Your task to perform on an android device: Go to privacy settings Image 0: 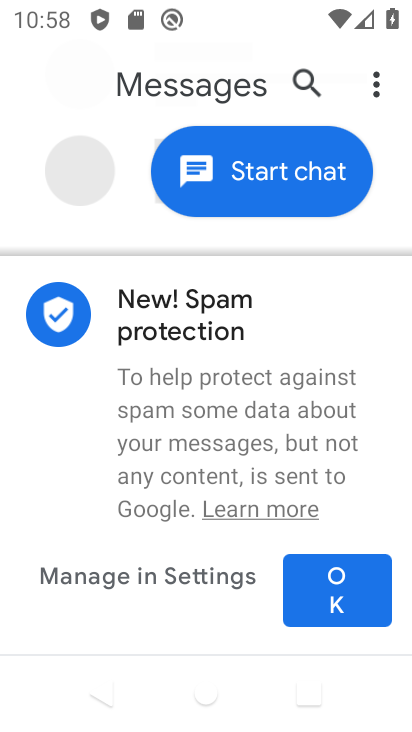
Step 0: press home button
Your task to perform on an android device: Go to privacy settings Image 1: 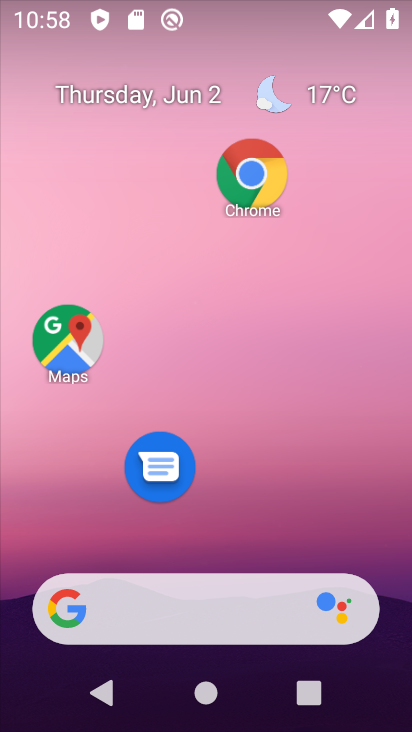
Step 1: drag from (269, 524) to (154, 8)
Your task to perform on an android device: Go to privacy settings Image 2: 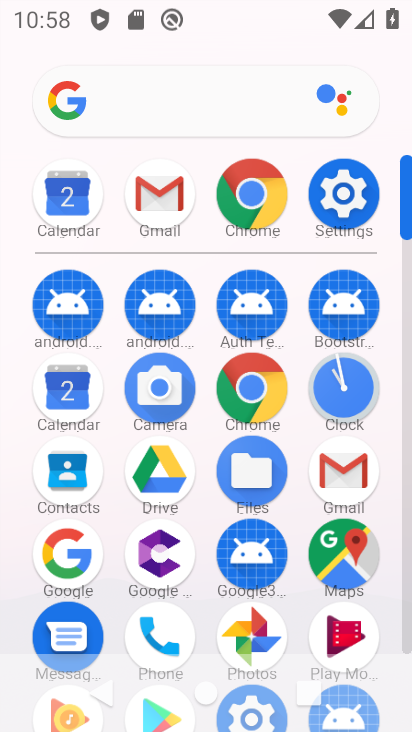
Step 2: click (353, 189)
Your task to perform on an android device: Go to privacy settings Image 3: 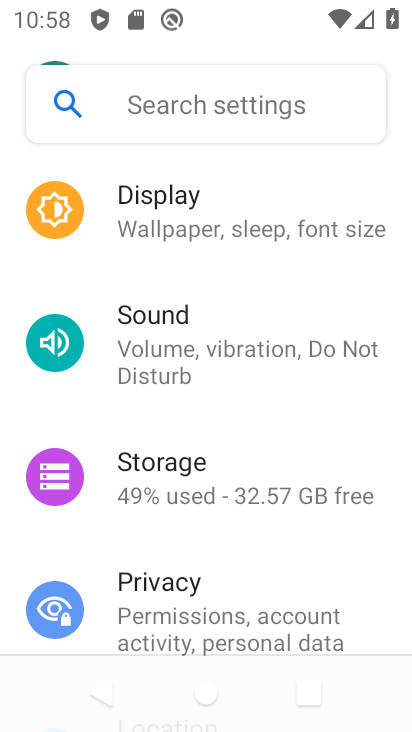
Step 3: click (174, 591)
Your task to perform on an android device: Go to privacy settings Image 4: 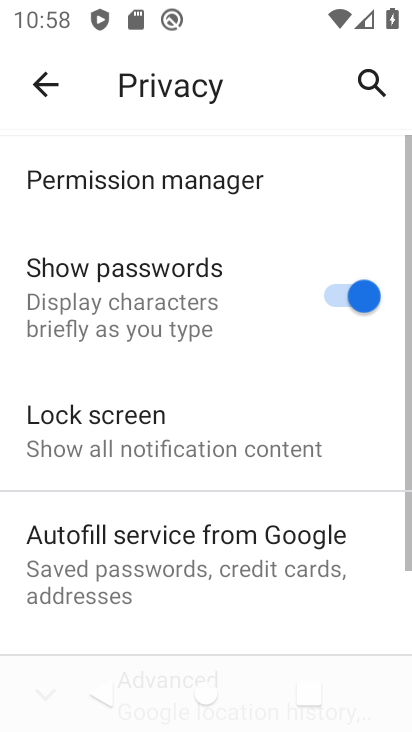
Step 4: task complete